Your task to perform on an android device: Is it going to rain tomorrow? Image 0: 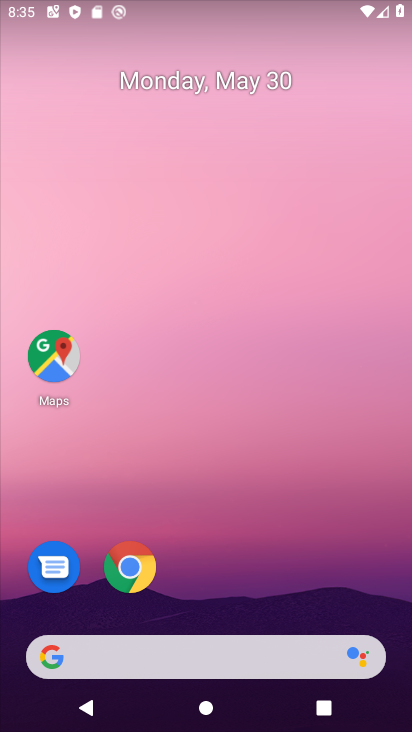
Step 0: click (205, 660)
Your task to perform on an android device: Is it going to rain tomorrow? Image 1: 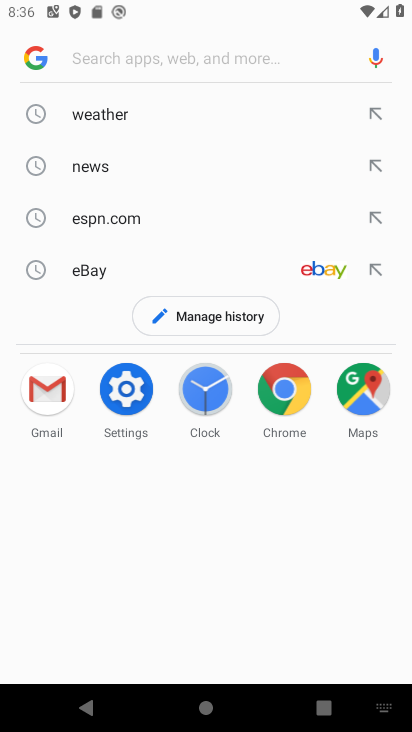
Step 1: click (133, 122)
Your task to perform on an android device: Is it going to rain tomorrow? Image 2: 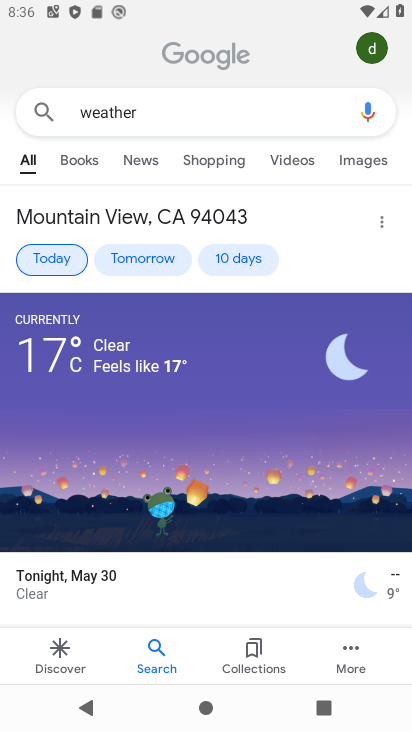
Step 2: click (141, 261)
Your task to perform on an android device: Is it going to rain tomorrow? Image 3: 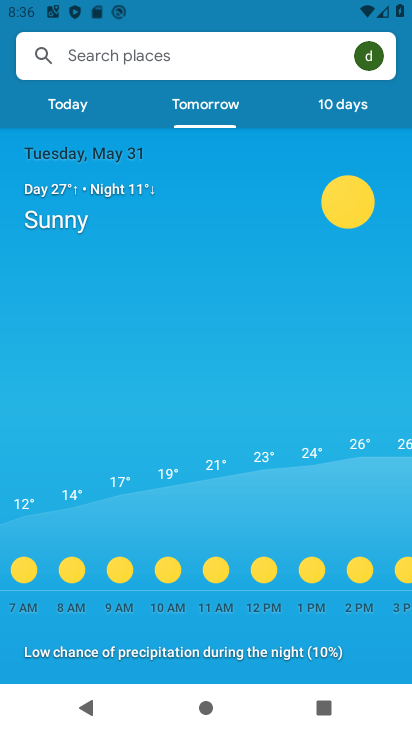
Step 3: task complete